Your task to perform on an android device: change timer sound Image 0: 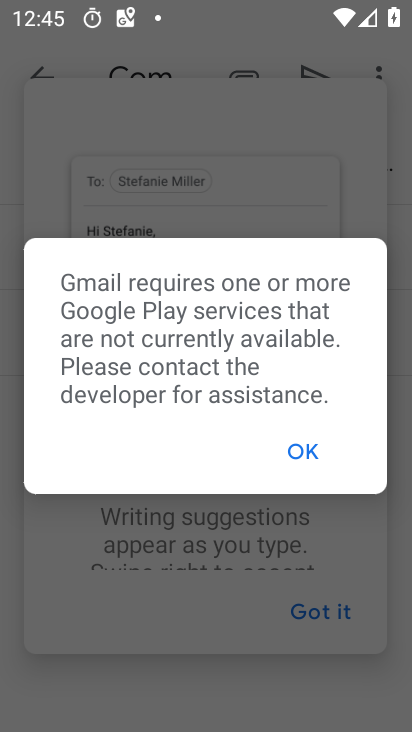
Step 0: press home button
Your task to perform on an android device: change timer sound Image 1: 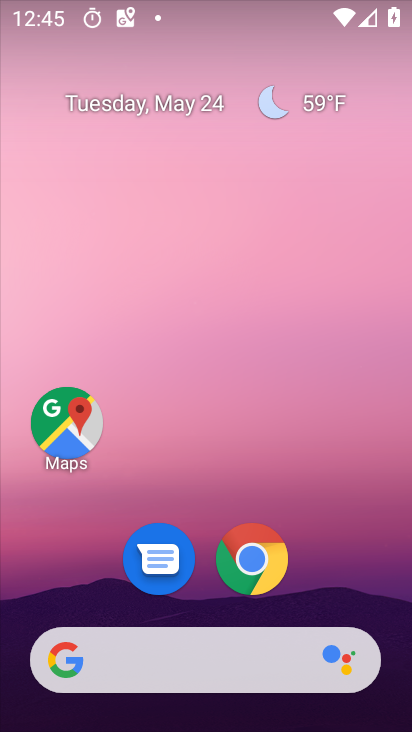
Step 1: drag from (399, 683) to (365, 254)
Your task to perform on an android device: change timer sound Image 2: 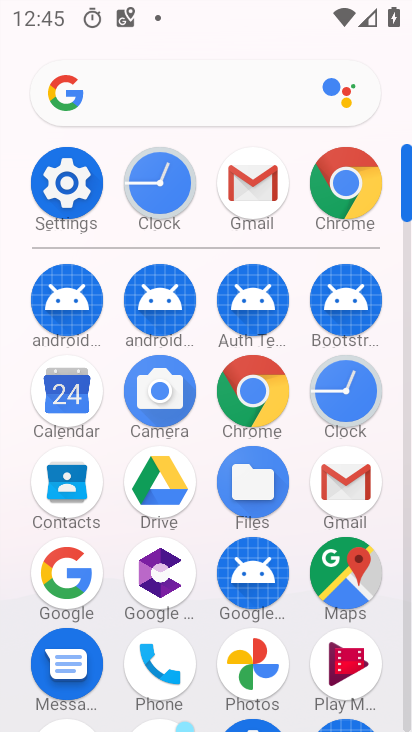
Step 2: click (346, 384)
Your task to perform on an android device: change timer sound Image 3: 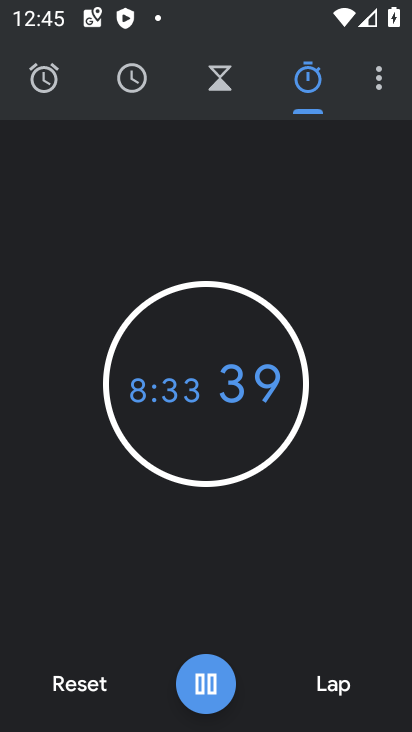
Step 3: click (46, 85)
Your task to perform on an android device: change timer sound Image 4: 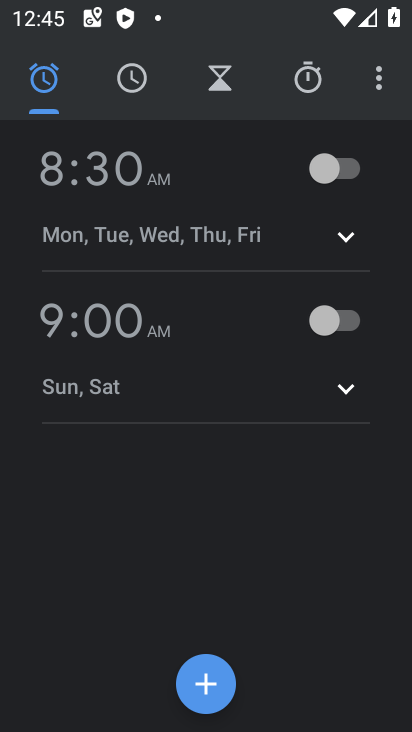
Step 4: click (308, 79)
Your task to perform on an android device: change timer sound Image 5: 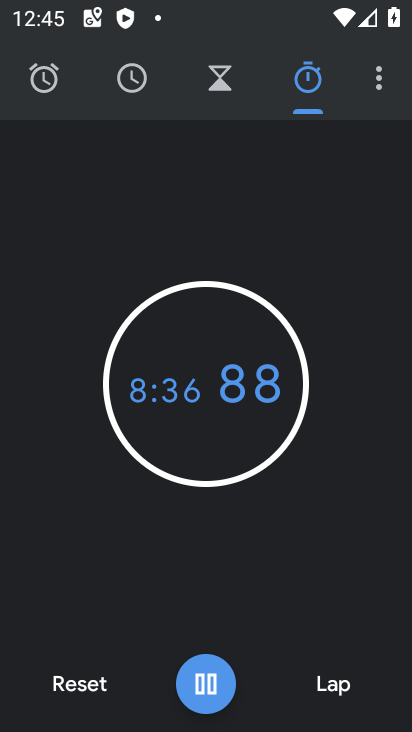
Step 5: click (375, 89)
Your task to perform on an android device: change timer sound Image 6: 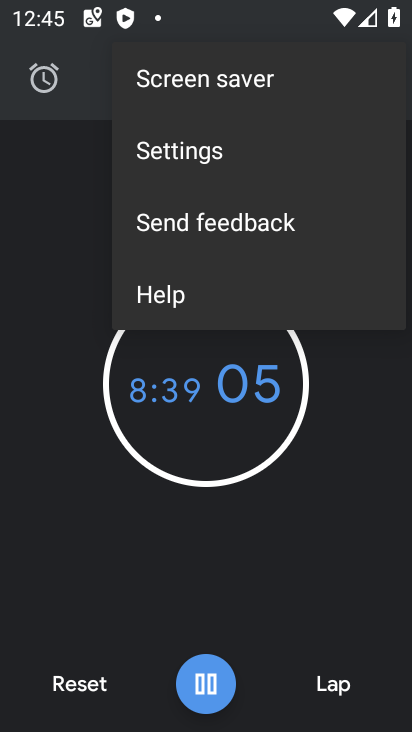
Step 6: click (170, 154)
Your task to perform on an android device: change timer sound Image 7: 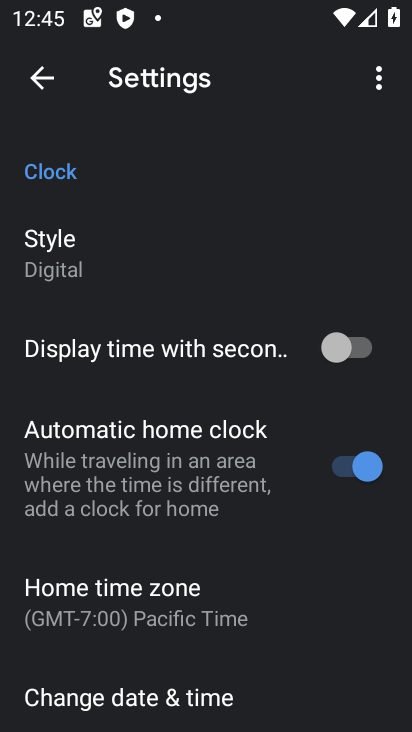
Step 7: drag from (258, 673) to (233, 276)
Your task to perform on an android device: change timer sound Image 8: 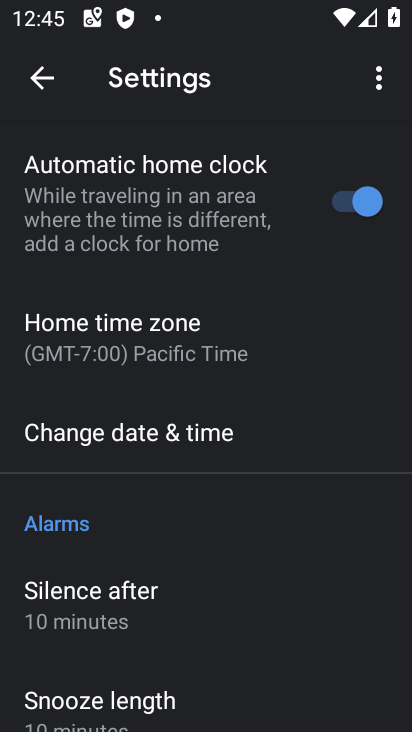
Step 8: drag from (200, 709) to (184, 387)
Your task to perform on an android device: change timer sound Image 9: 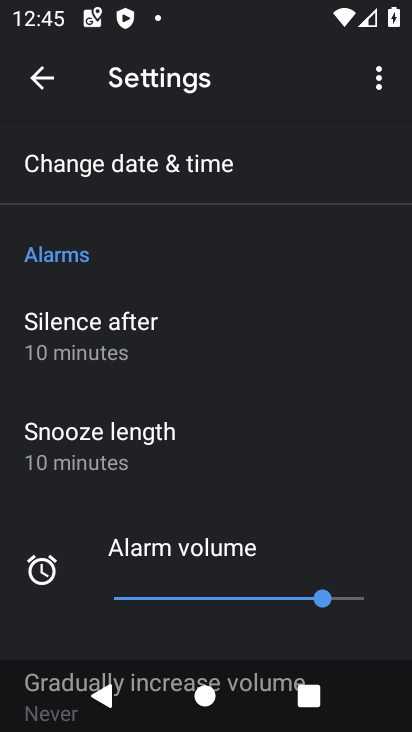
Step 9: drag from (355, 638) to (318, 277)
Your task to perform on an android device: change timer sound Image 10: 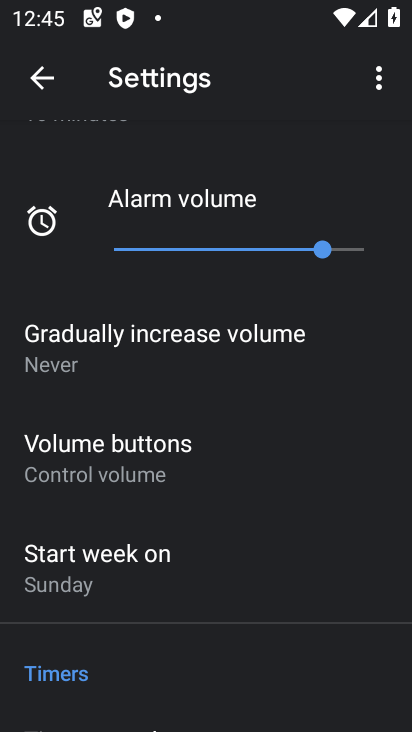
Step 10: drag from (213, 676) to (183, 379)
Your task to perform on an android device: change timer sound Image 11: 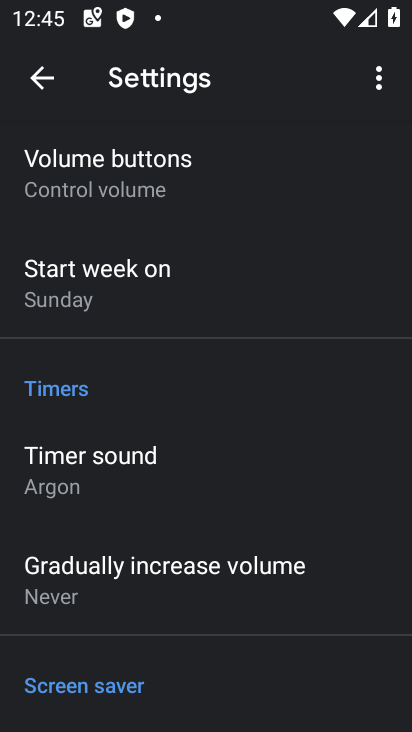
Step 11: click (85, 461)
Your task to perform on an android device: change timer sound Image 12: 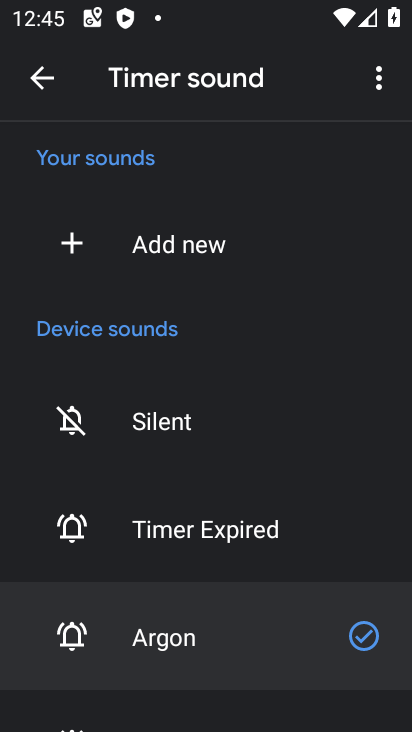
Step 12: click (134, 529)
Your task to perform on an android device: change timer sound Image 13: 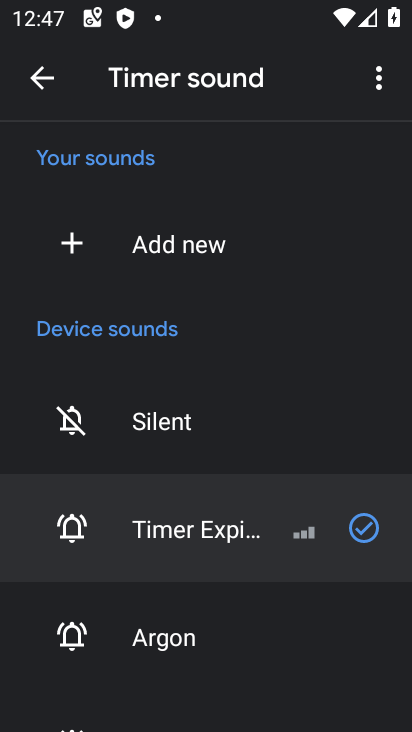
Step 13: task complete